Your task to perform on an android device: check storage Image 0: 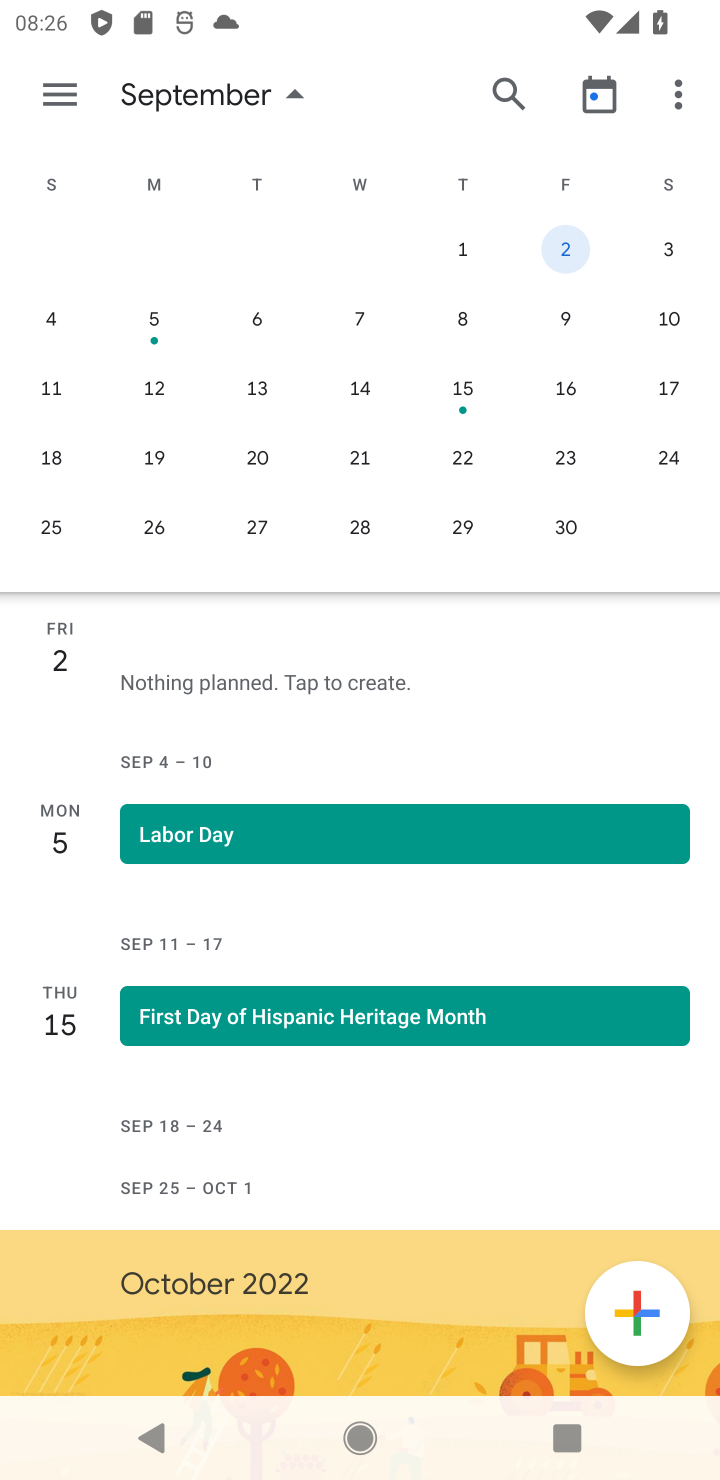
Step 0: press home button
Your task to perform on an android device: check storage Image 1: 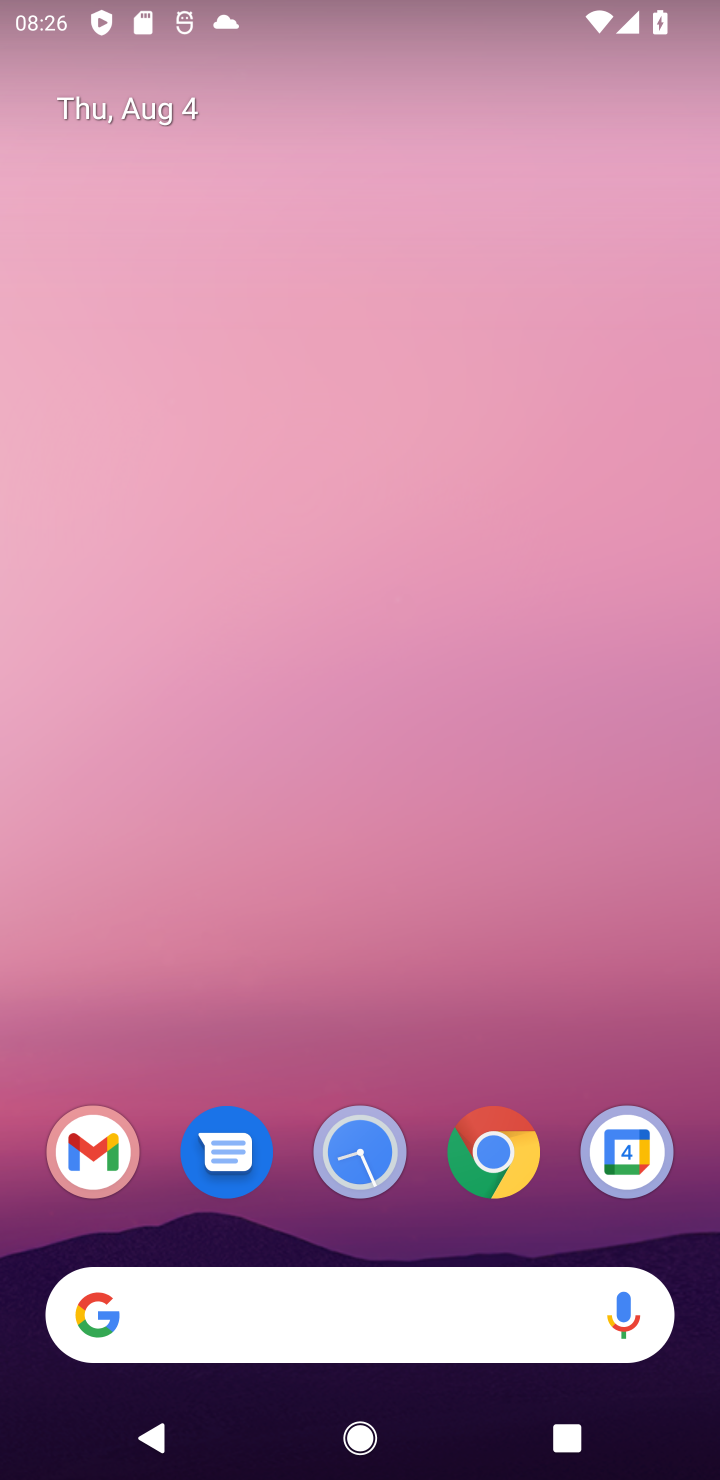
Step 1: drag from (207, 705) to (449, 151)
Your task to perform on an android device: check storage Image 2: 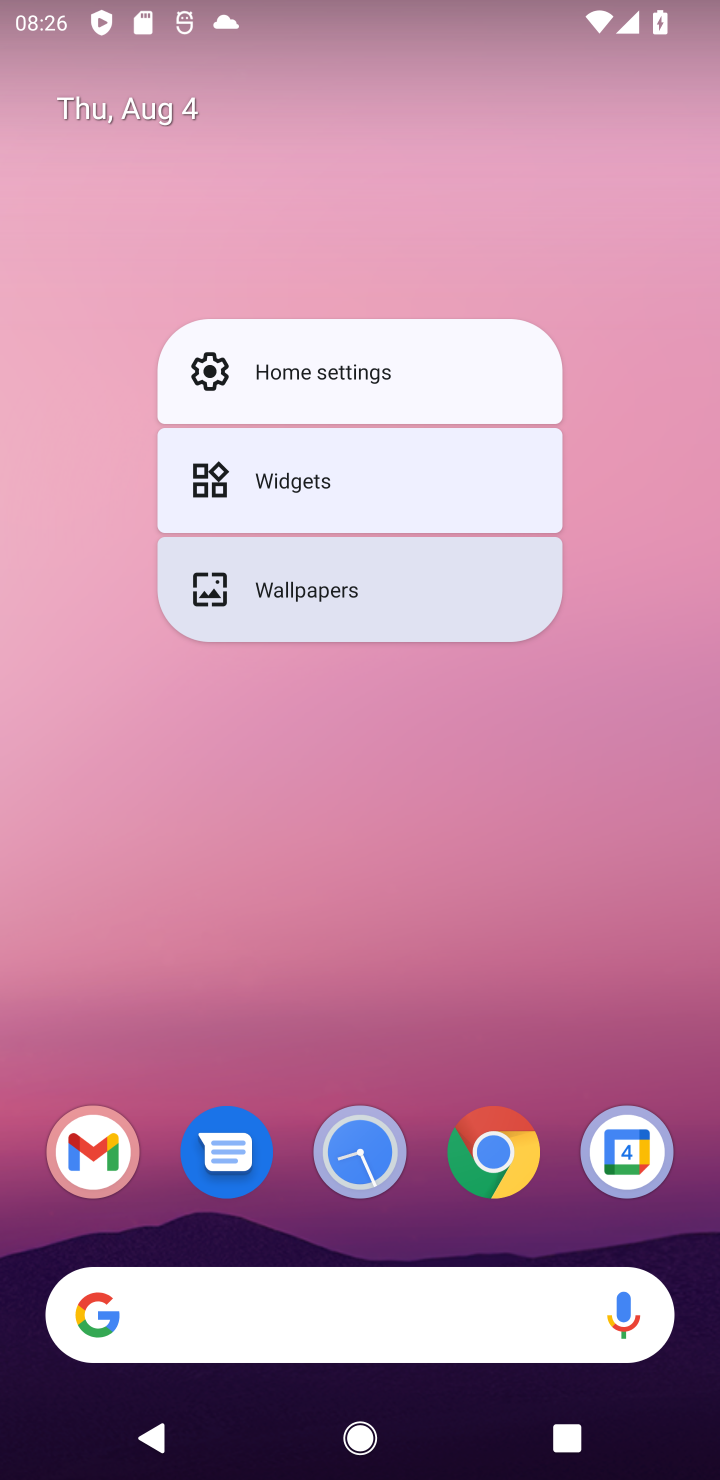
Step 2: drag from (172, 673) to (385, 78)
Your task to perform on an android device: check storage Image 3: 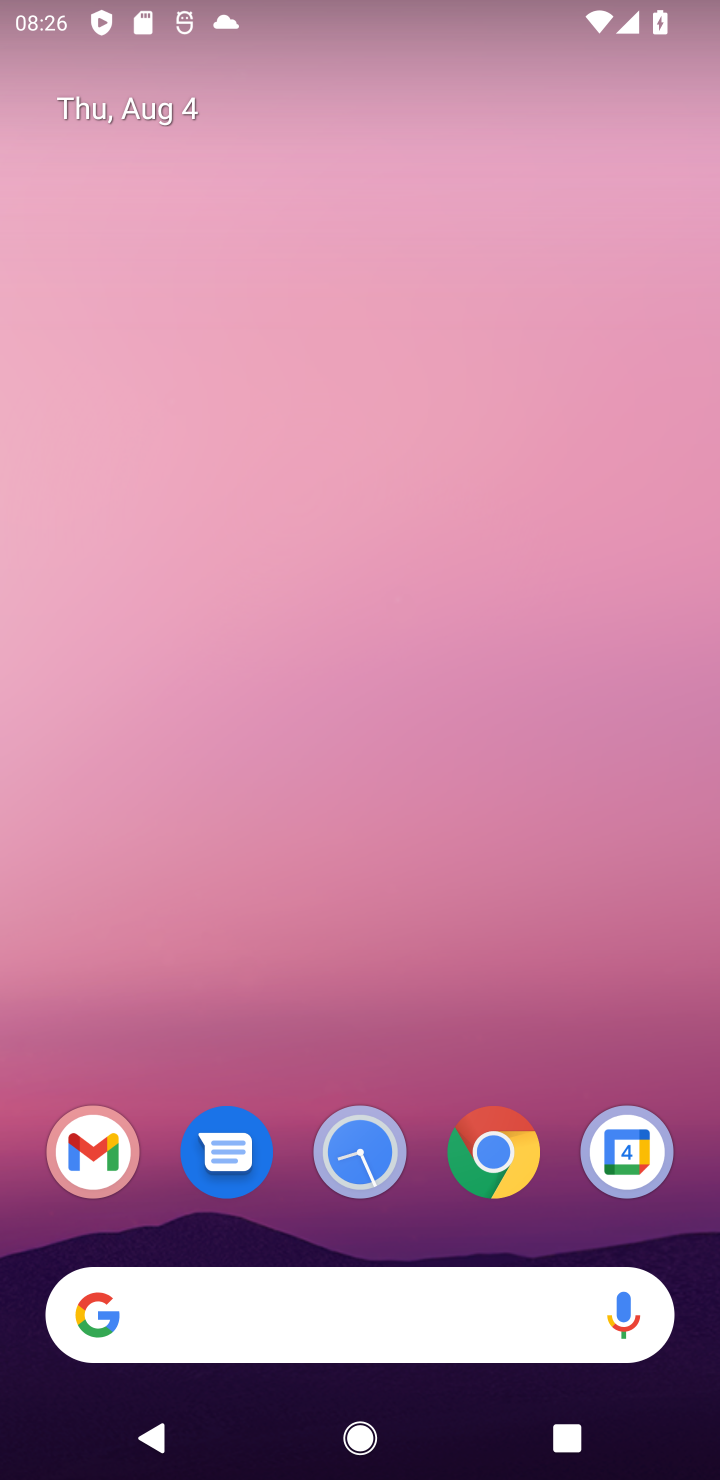
Step 3: drag from (381, 364) to (482, 108)
Your task to perform on an android device: check storage Image 4: 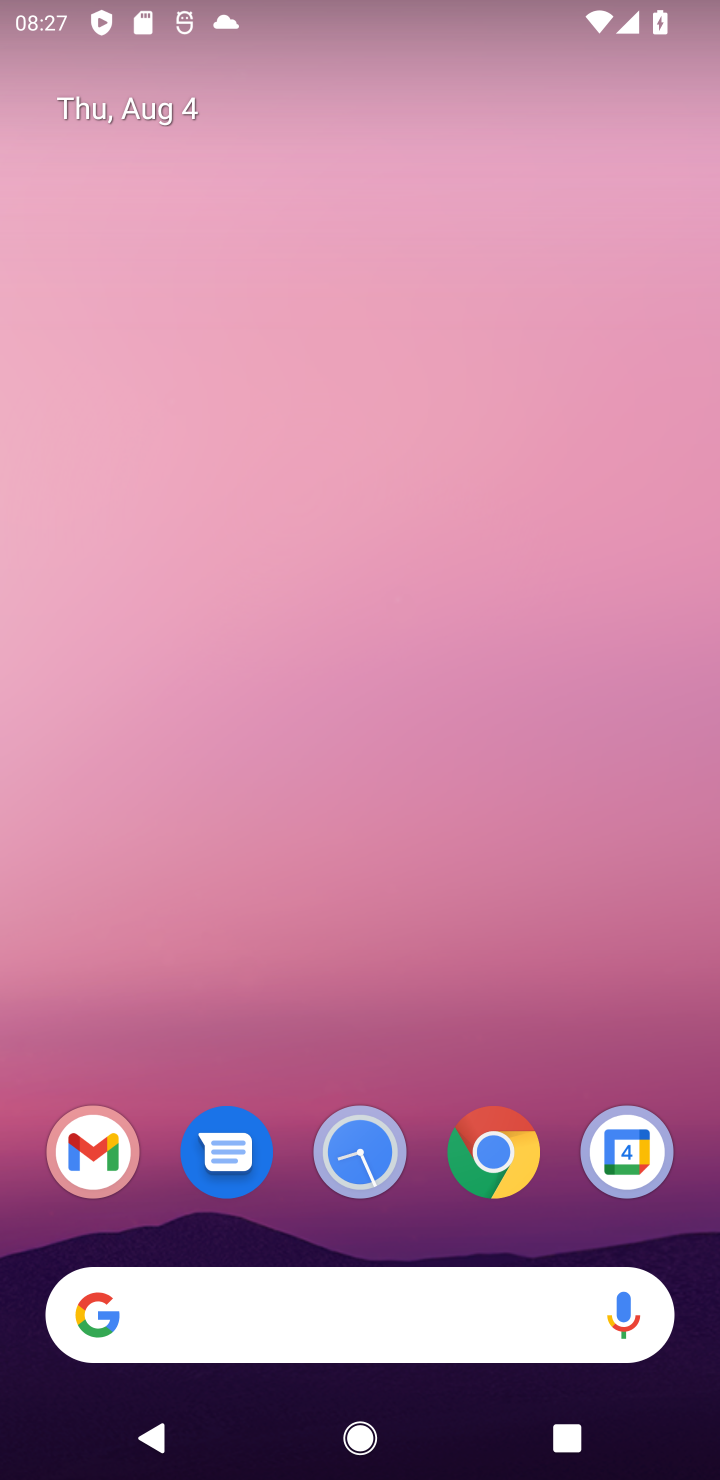
Step 4: drag from (173, 991) to (548, 128)
Your task to perform on an android device: check storage Image 5: 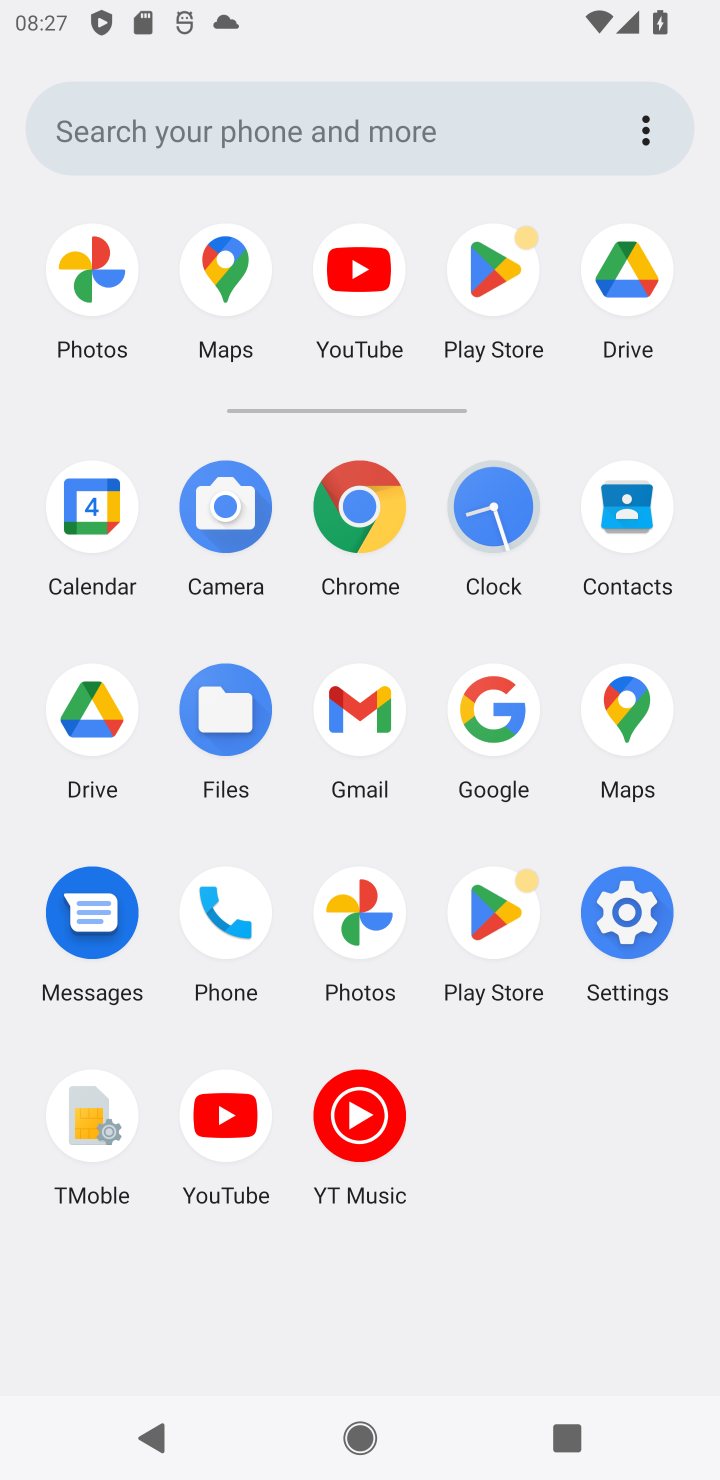
Step 5: click (621, 914)
Your task to perform on an android device: check storage Image 6: 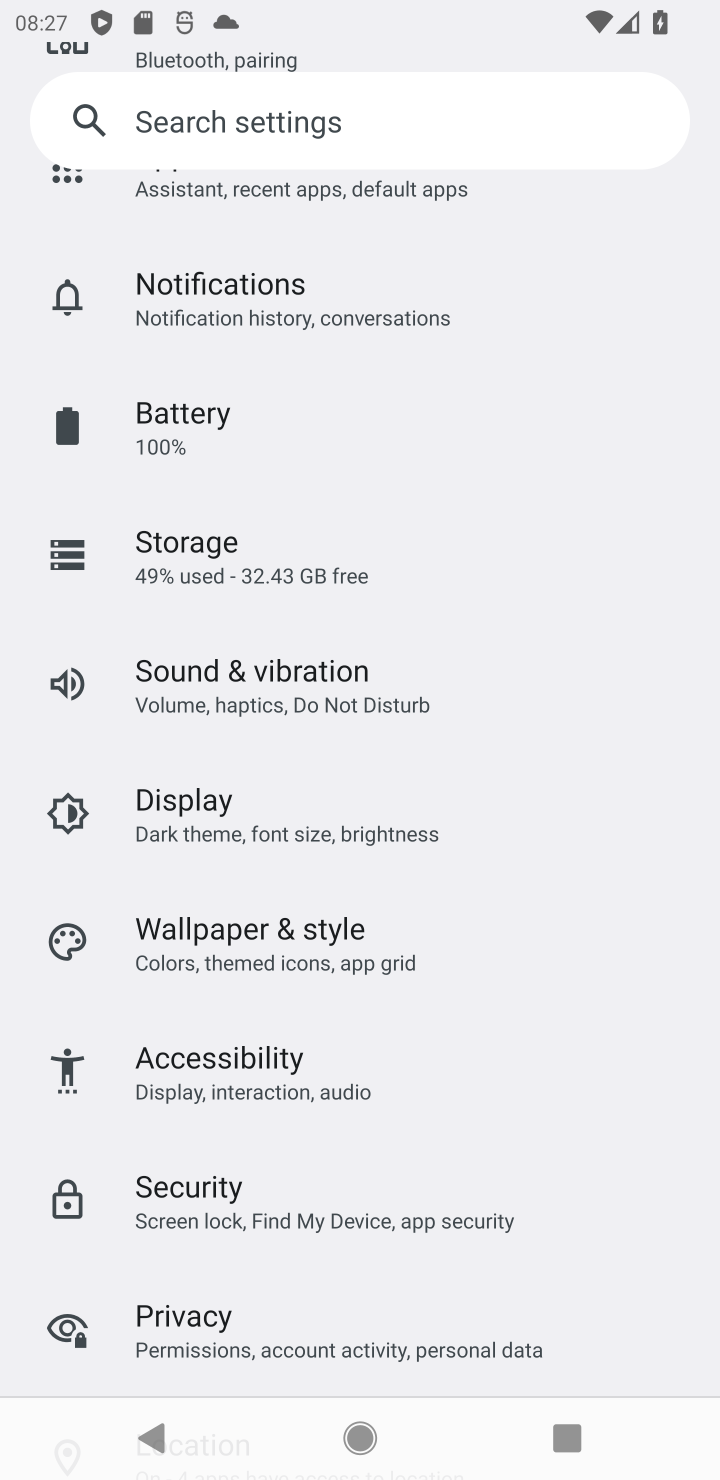
Step 6: click (429, 561)
Your task to perform on an android device: check storage Image 7: 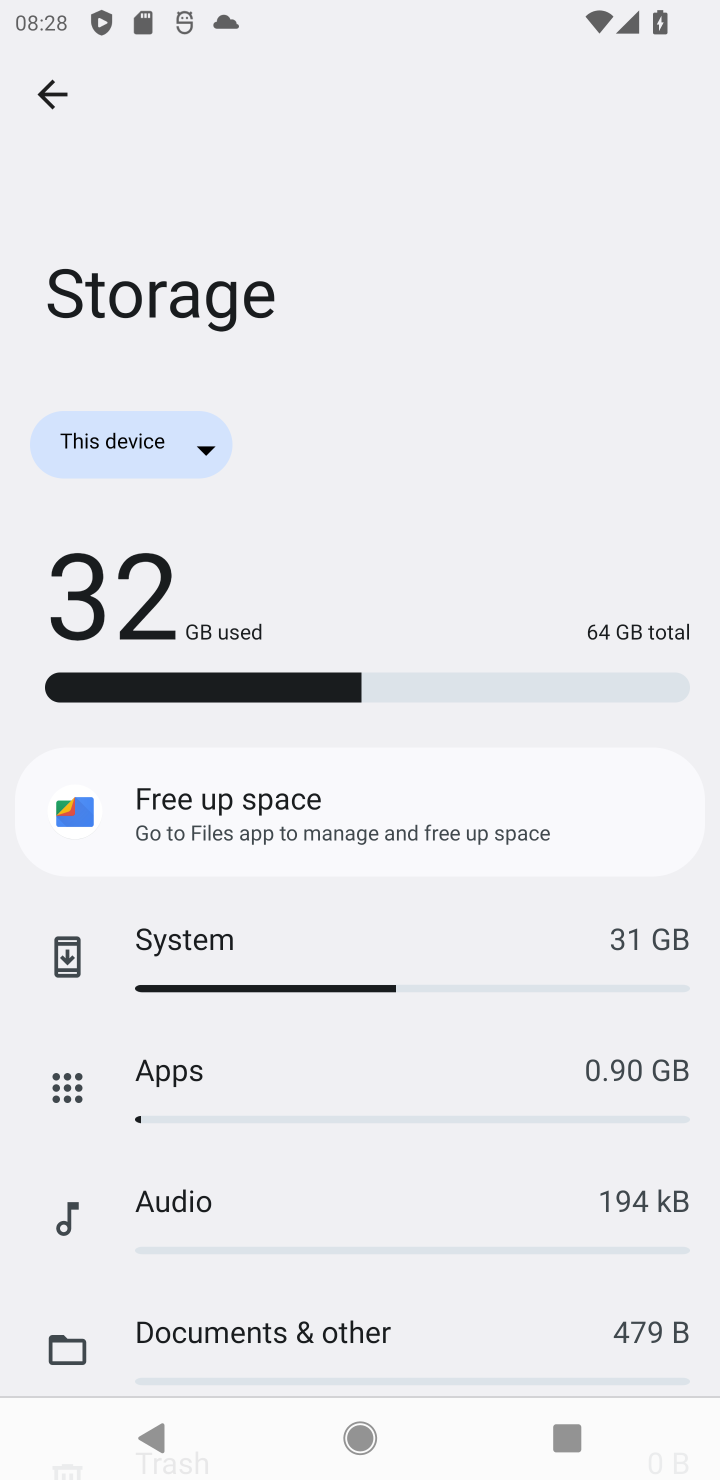
Step 7: task complete